Your task to perform on an android device: Check the news Image 0: 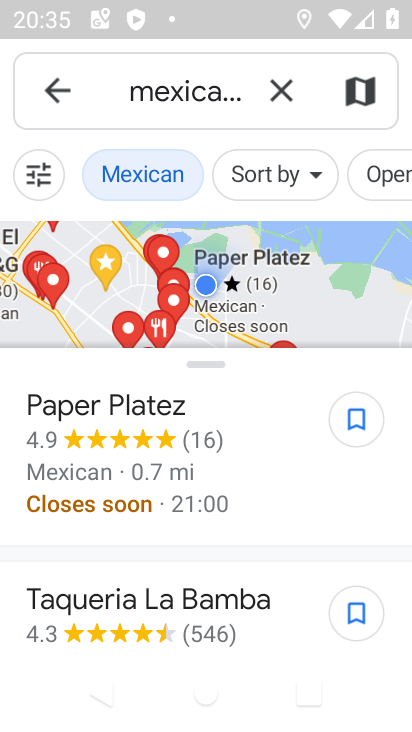
Step 0: press home button
Your task to perform on an android device: Check the news Image 1: 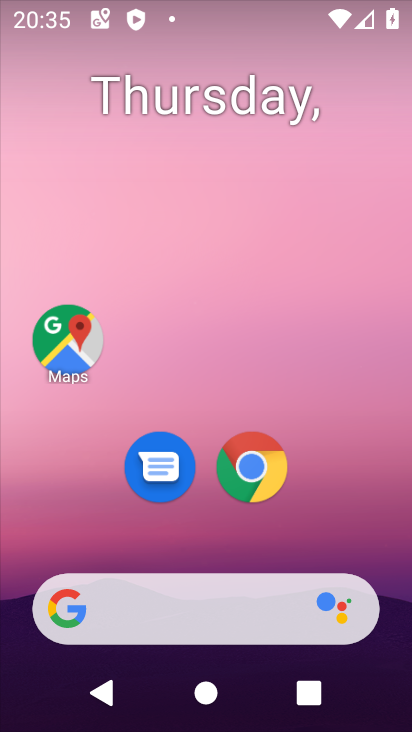
Step 1: click (250, 441)
Your task to perform on an android device: Check the news Image 2: 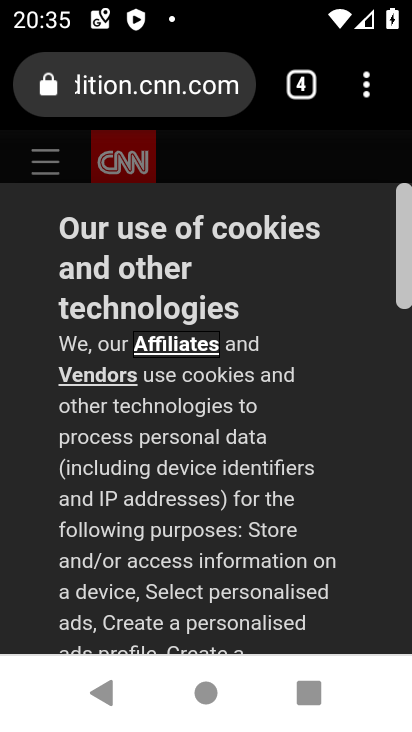
Step 2: click (357, 77)
Your task to perform on an android device: Check the news Image 3: 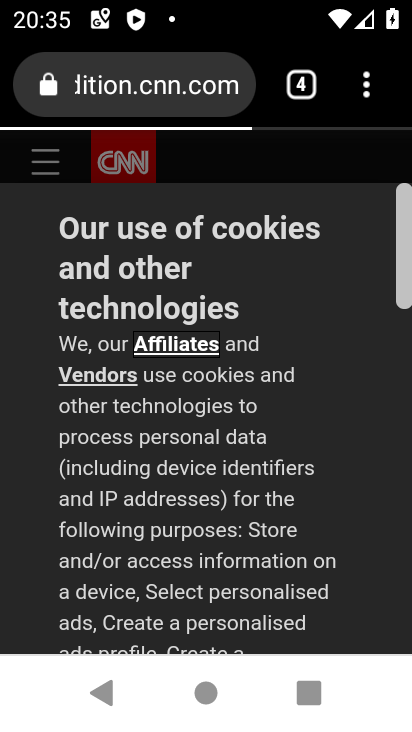
Step 3: click (361, 96)
Your task to perform on an android device: Check the news Image 4: 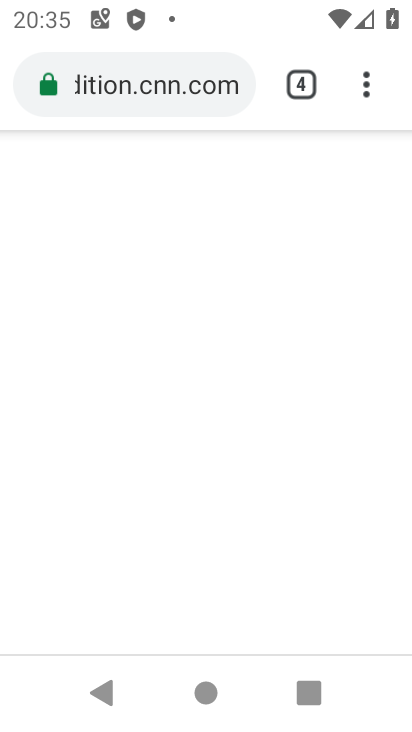
Step 4: click (367, 81)
Your task to perform on an android device: Check the news Image 5: 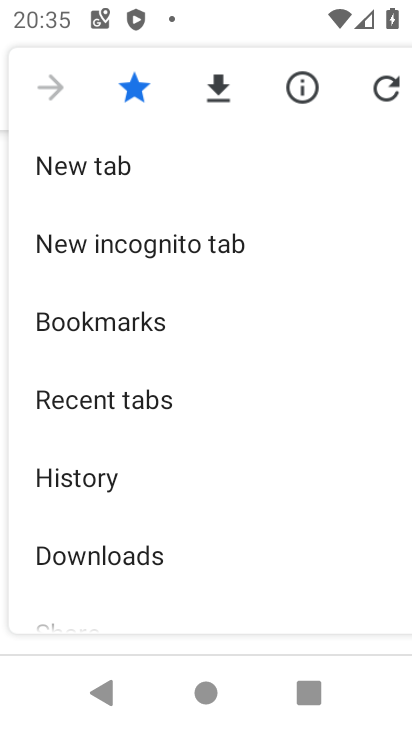
Step 5: click (153, 170)
Your task to perform on an android device: Check the news Image 6: 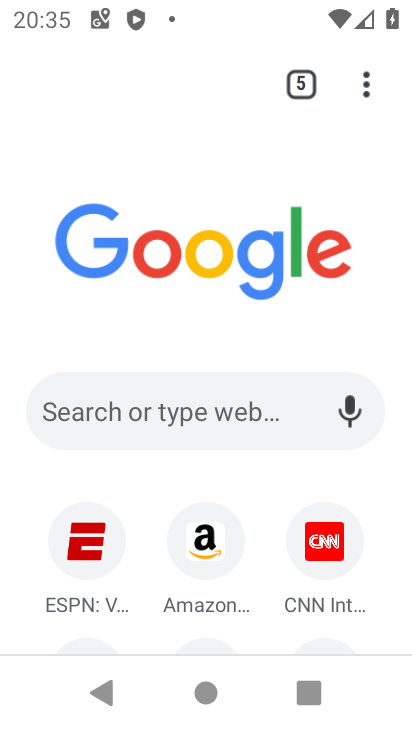
Step 6: click (187, 403)
Your task to perform on an android device: Check the news Image 7: 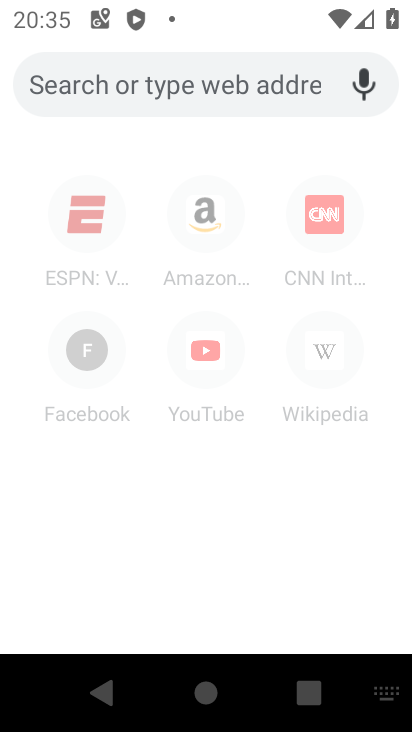
Step 7: type "Check the news"
Your task to perform on an android device: Check the news Image 8: 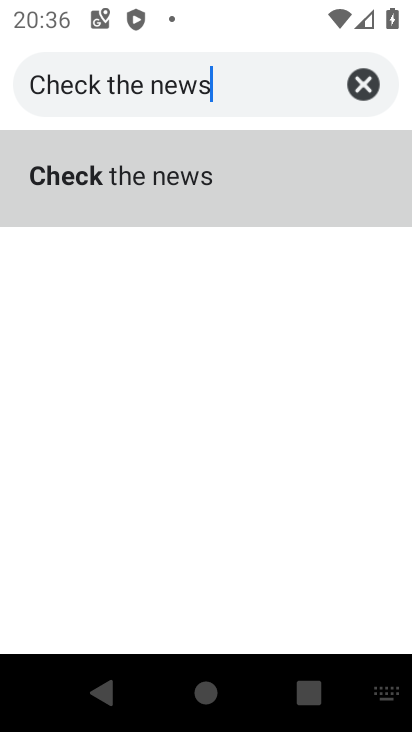
Step 8: click (268, 185)
Your task to perform on an android device: Check the news Image 9: 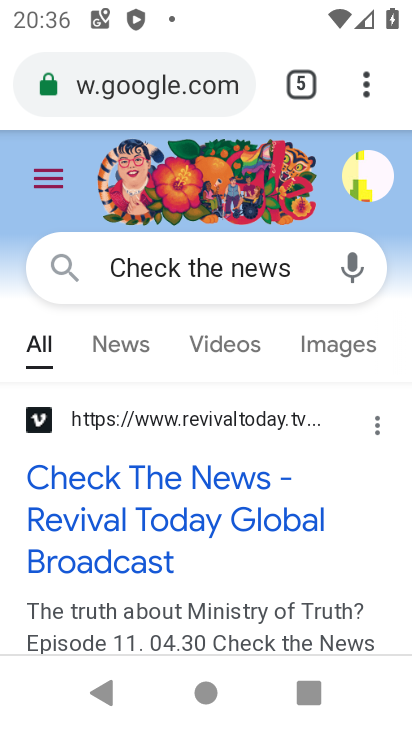
Step 9: task complete